Your task to perform on an android device: change the clock display to digital Image 0: 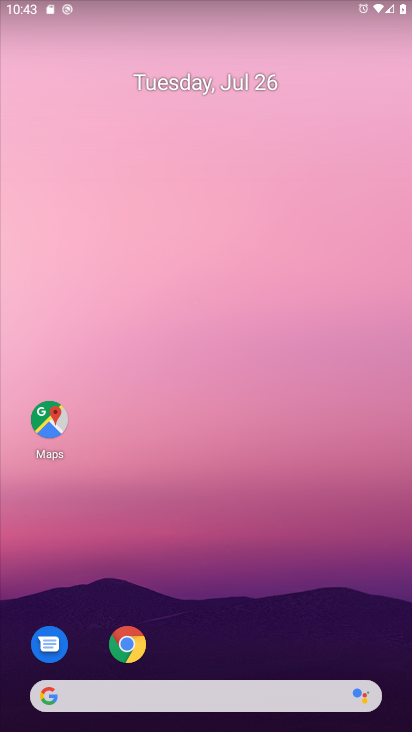
Step 0: drag from (202, 649) to (236, 26)
Your task to perform on an android device: change the clock display to digital Image 1: 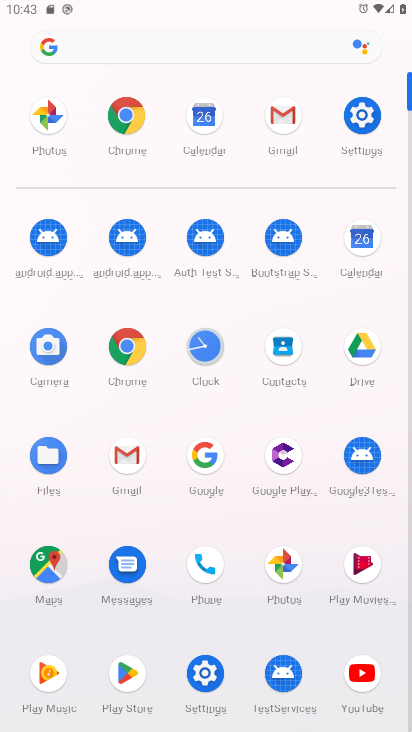
Step 1: click (202, 374)
Your task to perform on an android device: change the clock display to digital Image 2: 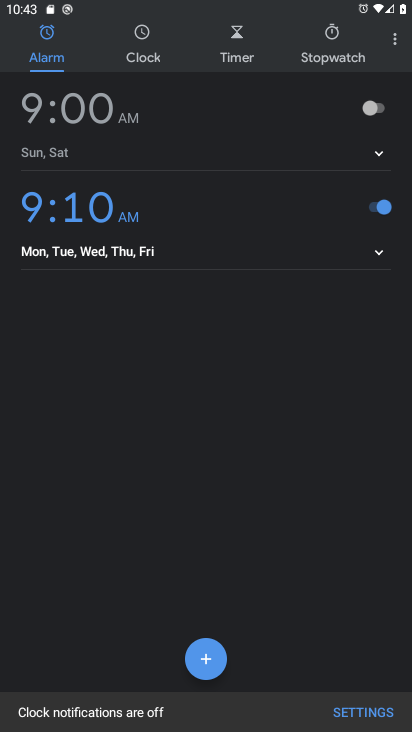
Step 2: click (395, 46)
Your task to perform on an android device: change the clock display to digital Image 3: 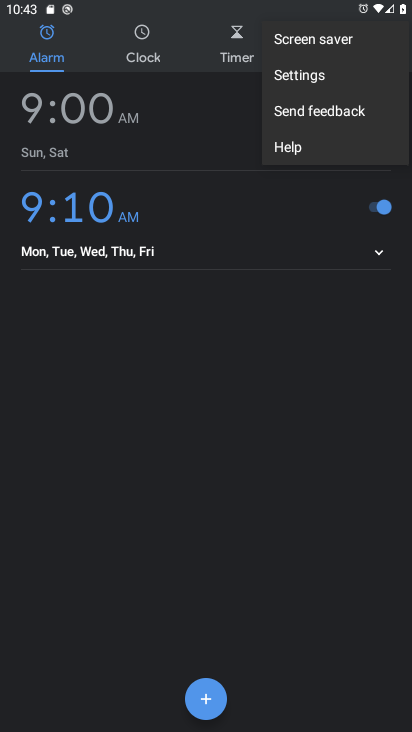
Step 3: click (314, 84)
Your task to perform on an android device: change the clock display to digital Image 4: 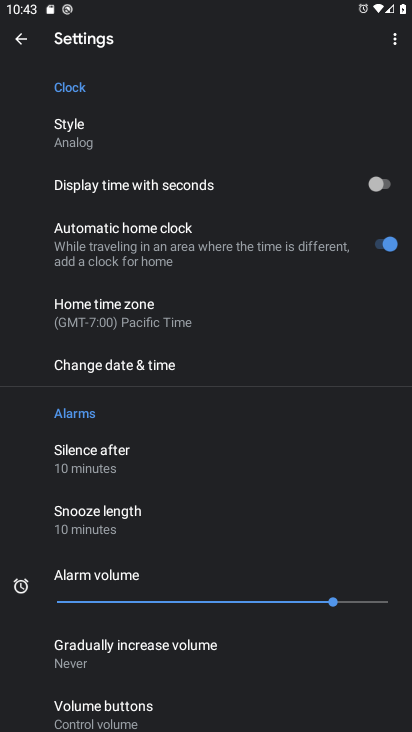
Step 4: click (97, 143)
Your task to perform on an android device: change the clock display to digital Image 5: 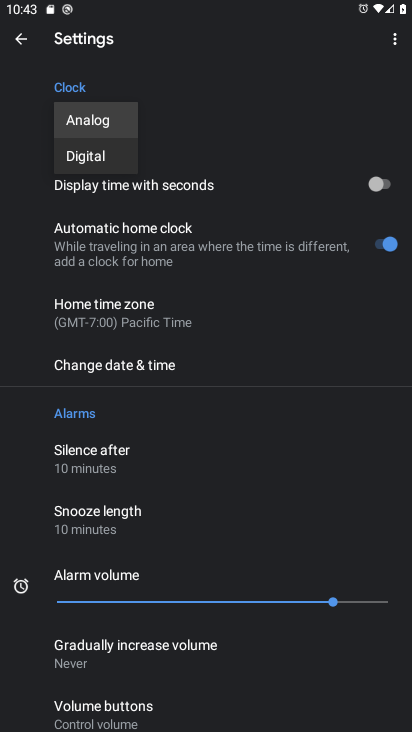
Step 5: click (93, 158)
Your task to perform on an android device: change the clock display to digital Image 6: 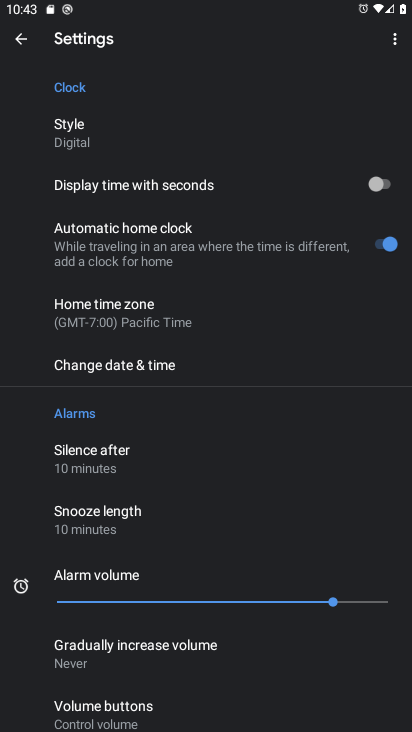
Step 6: task complete